Your task to perform on an android device: turn off location Image 0: 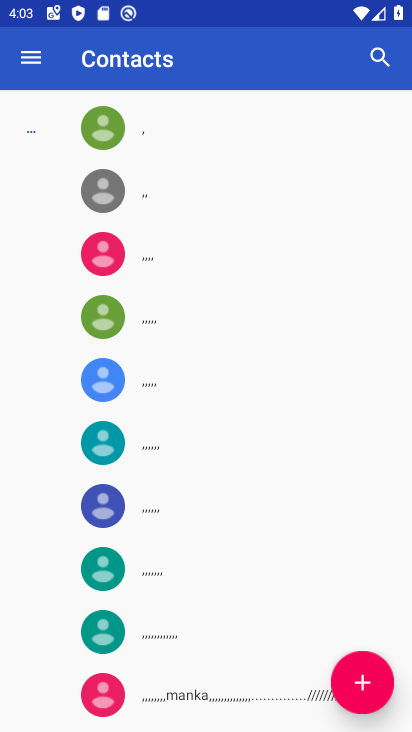
Step 0: press home button
Your task to perform on an android device: turn off location Image 1: 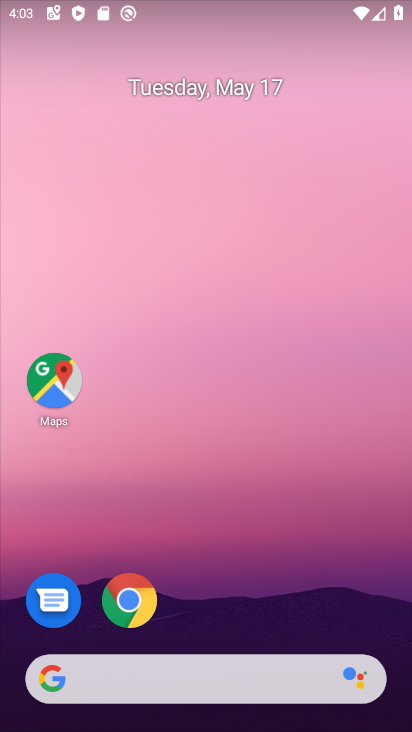
Step 1: drag from (217, 591) to (320, 29)
Your task to perform on an android device: turn off location Image 2: 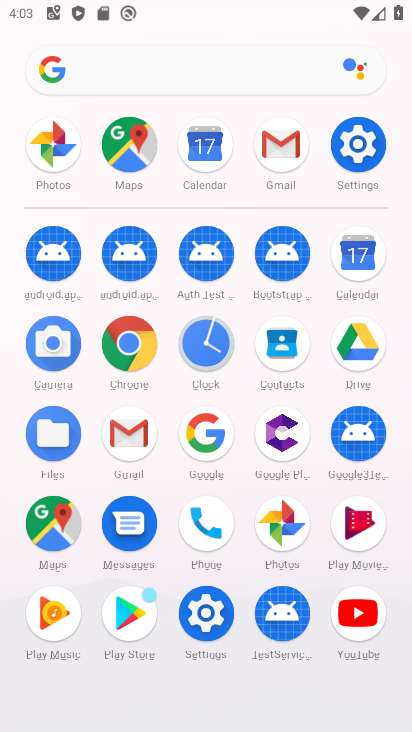
Step 2: click (357, 150)
Your task to perform on an android device: turn off location Image 3: 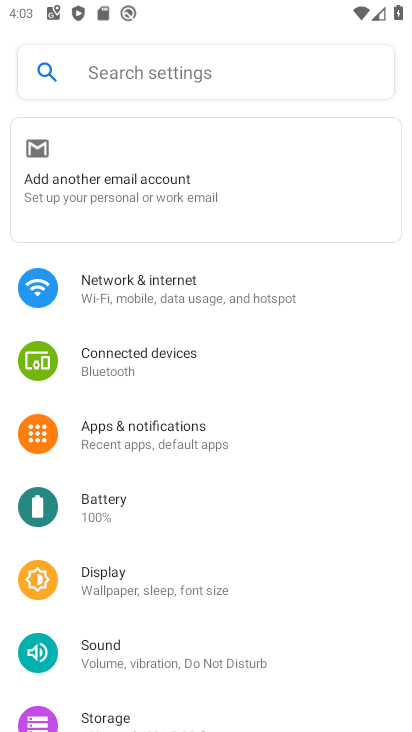
Step 3: drag from (204, 642) to (245, 167)
Your task to perform on an android device: turn off location Image 4: 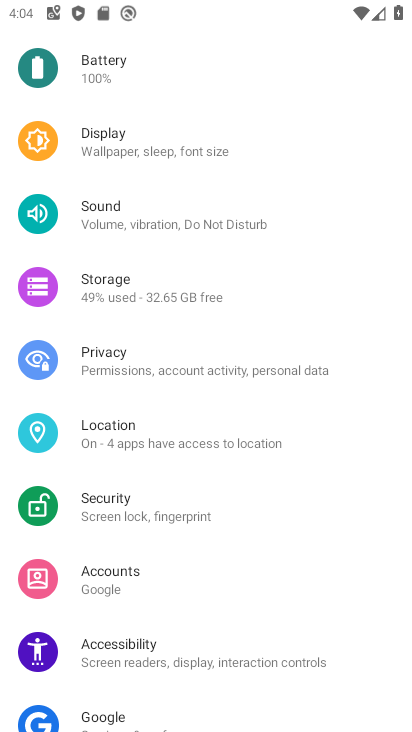
Step 4: click (170, 448)
Your task to perform on an android device: turn off location Image 5: 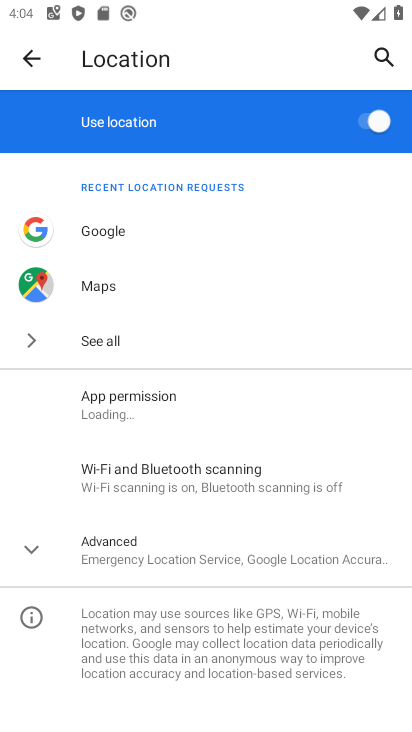
Step 5: click (355, 119)
Your task to perform on an android device: turn off location Image 6: 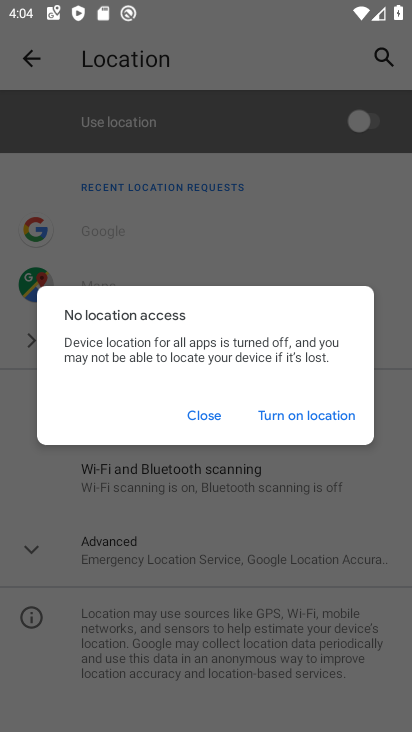
Step 6: click (190, 396)
Your task to perform on an android device: turn off location Image 7: 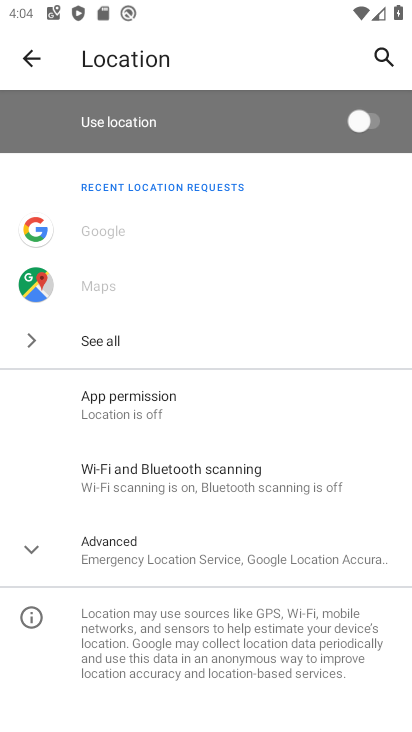
Step 7: task complete